Your task to perform on an android device: open app "NewsBreak: Local News & Alerts" (install if not already installed) Image 0: 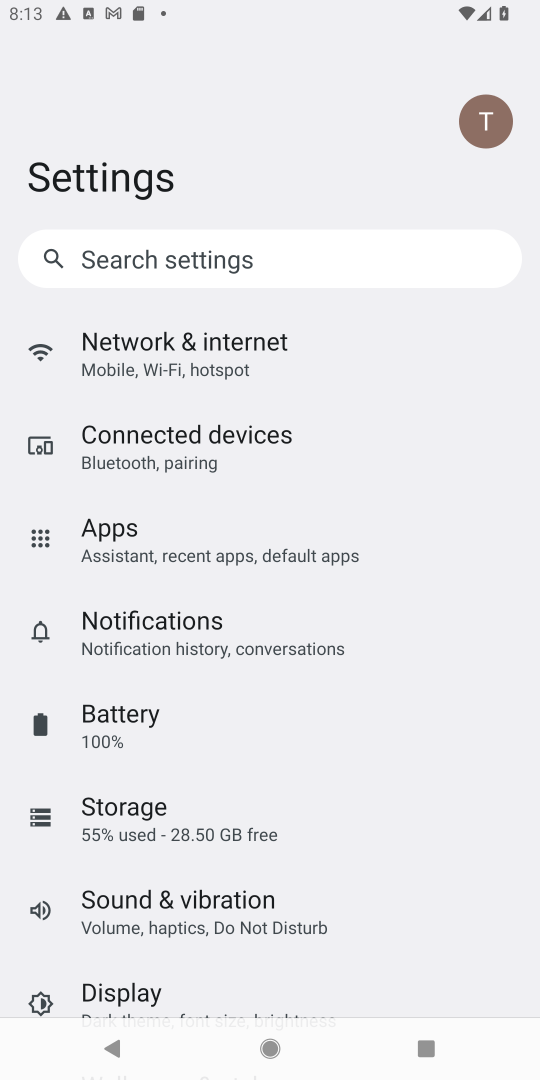
Step 0: press home button
Your task to perform on an android device: open app "NewsBreak: Local News & Alerts" (install if not already installed) Image 1: 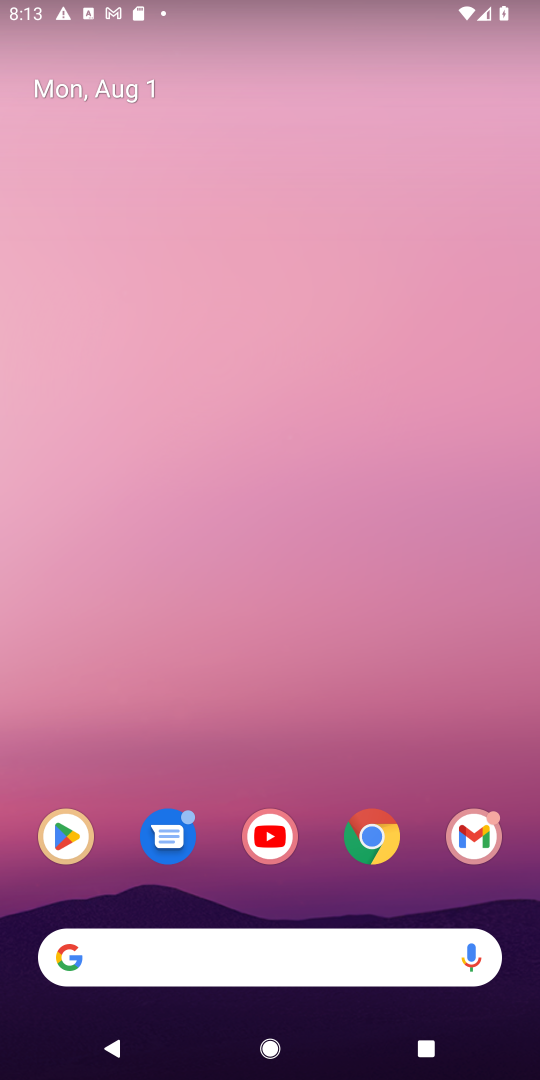
Step 1: click (71, 828)
Your task to perform on an android device: open app "NewsBreak: Local News & Alerts" (install if not already installed) Image 2: 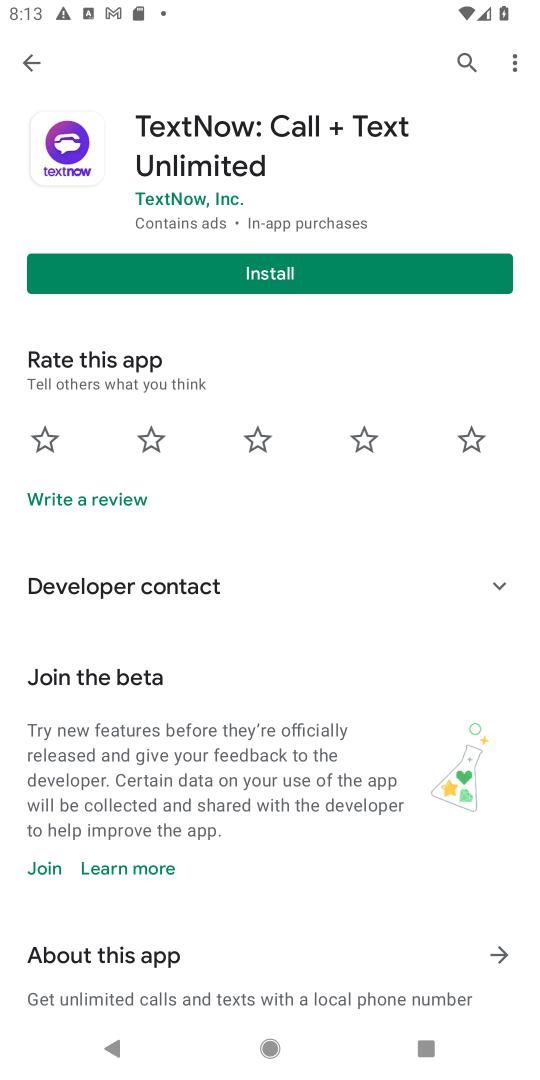
Step 2: click (465, 56)
Your task to perform on an android device: open app "NewsBreak: Local News & Alerts" (install if not already installed) Image 3: 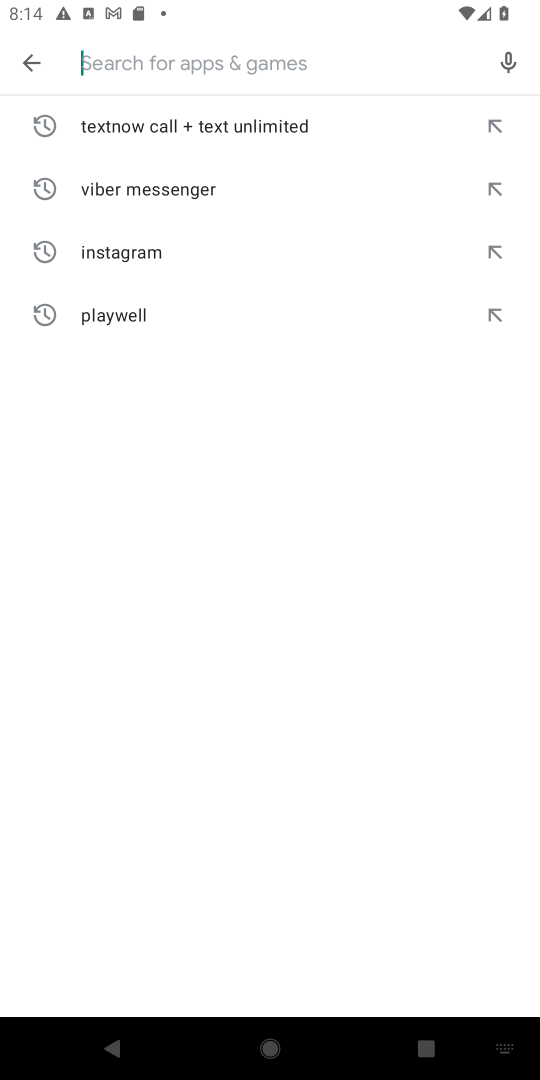
Step 3: type "NewsBreak: Local News & Alerts"
Your task to perform on an android device: open app "NewsBreak: Local News & Alerts" (install if not already installed) Image 4: 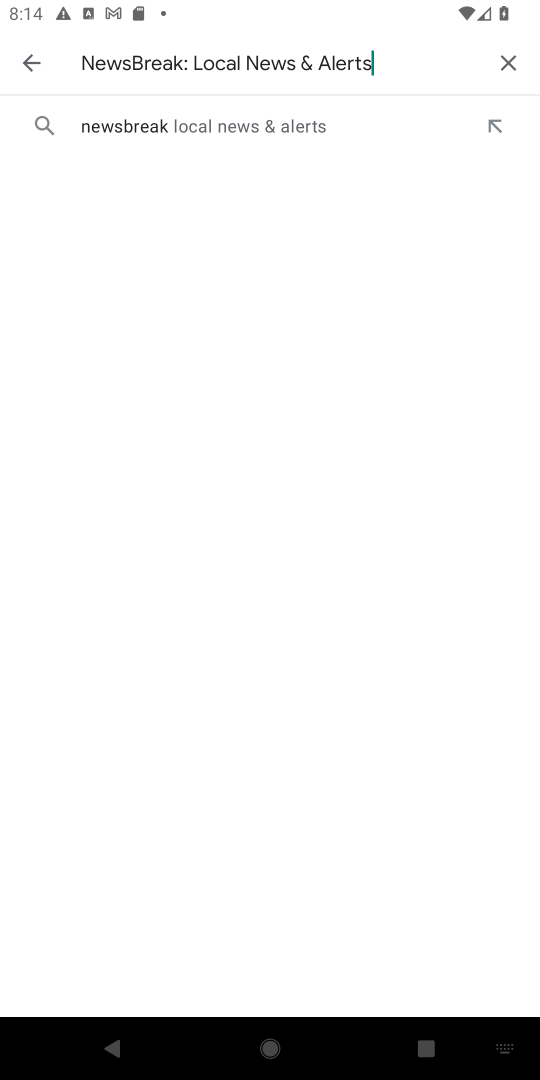
Step 4: click (198, 130)
Your task to perform on an android device: open app "NewsBreak: Local News & Alerts" (install if not already installed) Image 5: 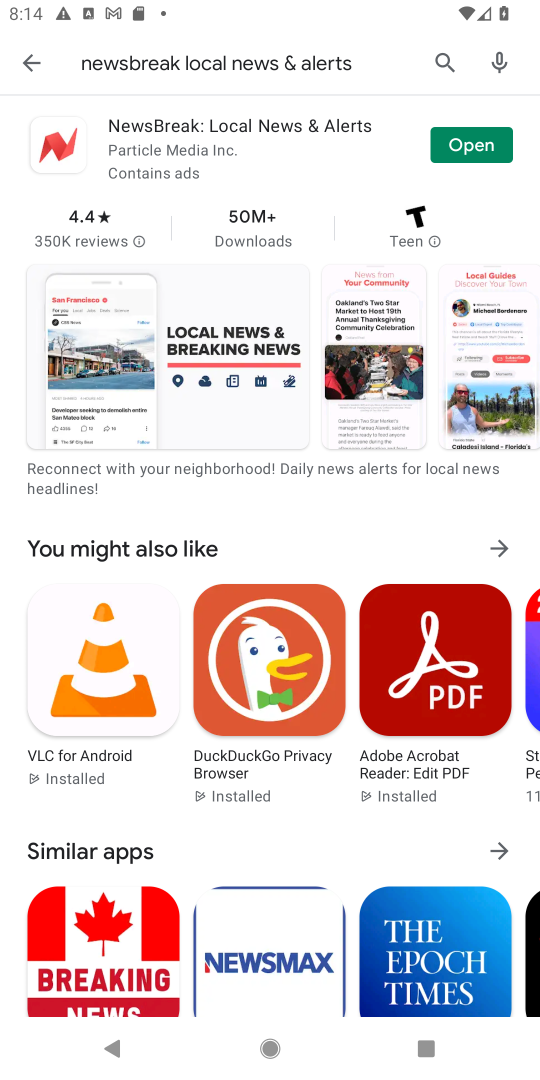
Step 5: click (470, 139)
Your task to perform on an android device: open app "NewsBreak: Local News & Alerts" (install if not already installed) Image 6: 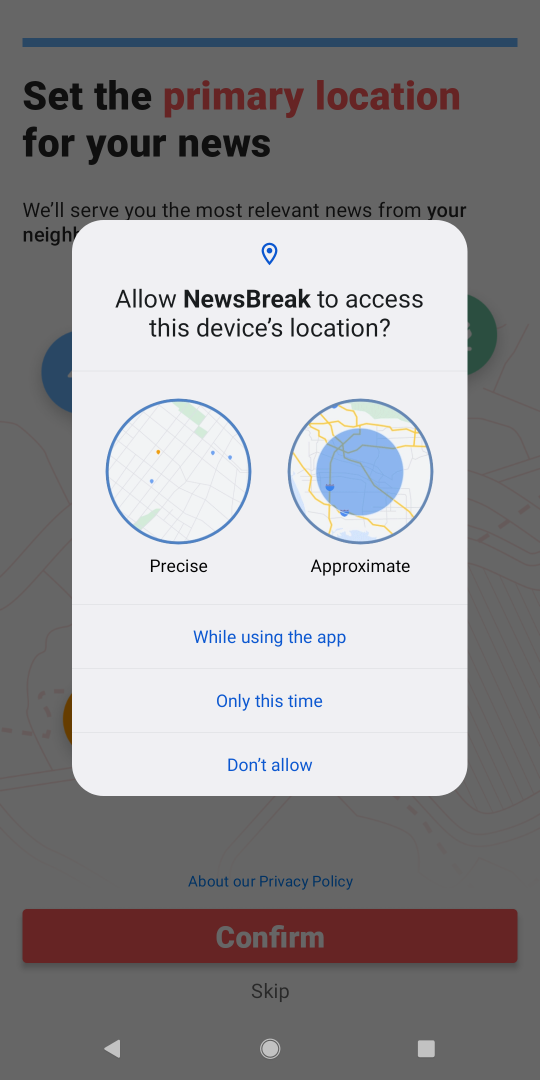
Step 6: task complete